Your task to perform on an android device: Go to display settings Image 0: 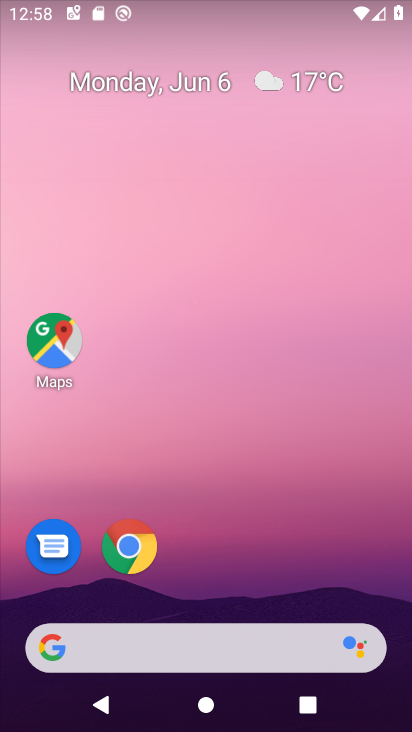
Step 0: drag from (244, 636) to (241, 263)
Your task to perform on an android device: Go to display settings Image 1: 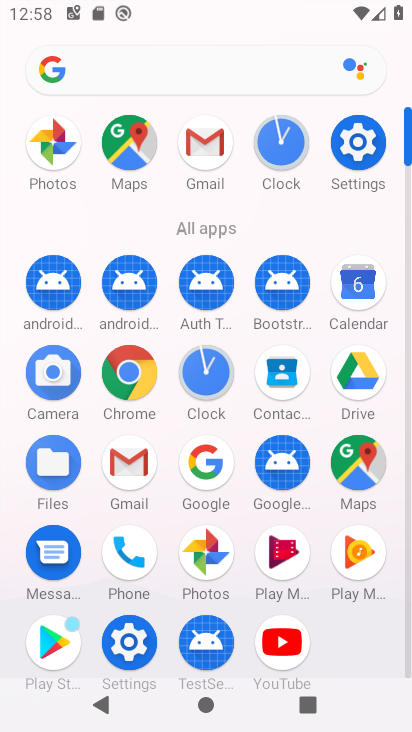
Step 1: click (120, 639)
Your task to perform on an android device: Go to display settings Image 2: 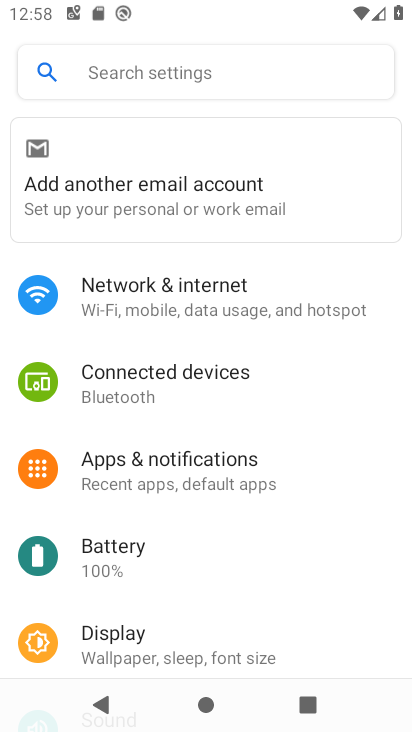
Step 2: click (121, 623)
Your task to perform on an android device: Go to display settings Image 3: 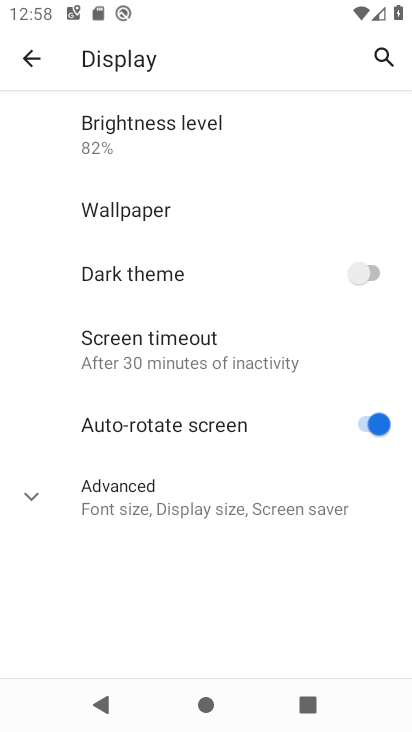
Step 3: task complete